Your task to perform on an android device: delete the emails in spam in the gmail app Image 0: 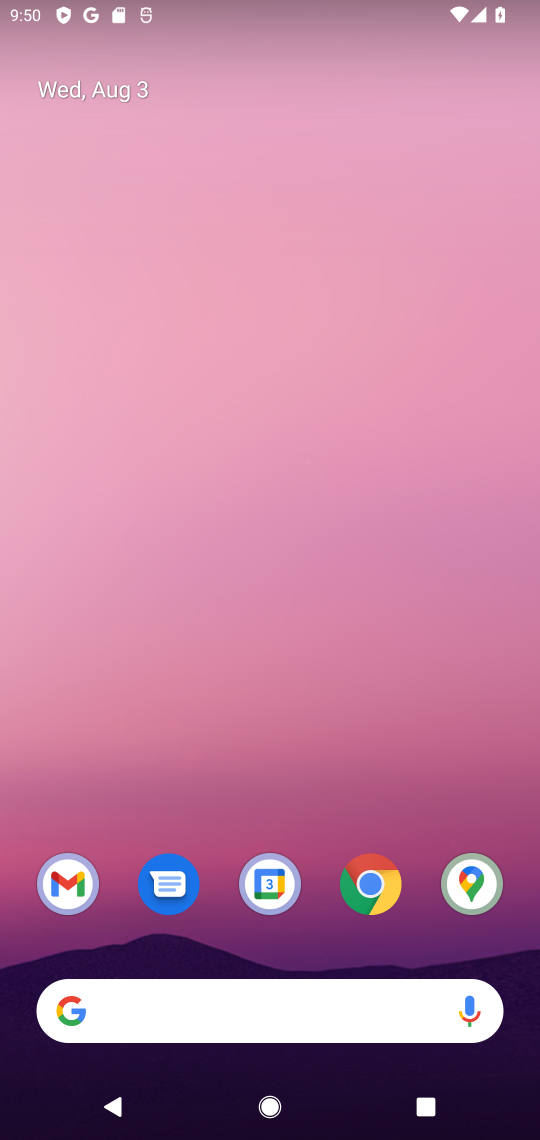
Step 0: click (68, 868)
Your task to perform on an android device: delete the emails in spam in the gmail app Image 1: 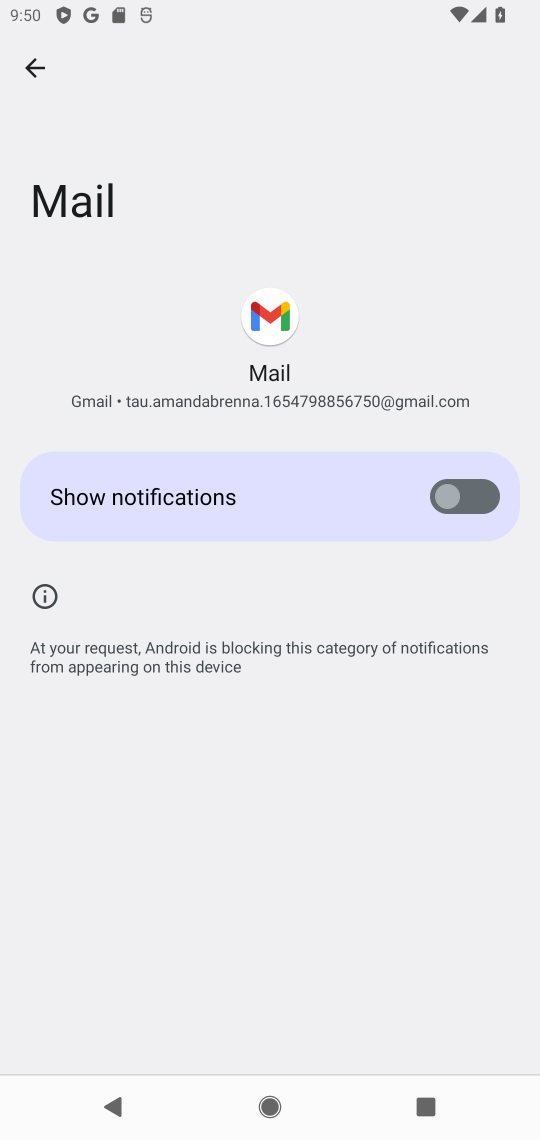
Step 1: click (117, 1113)
Your task to perform on an android device: delete the emails in spam in the gmail app Image 2: 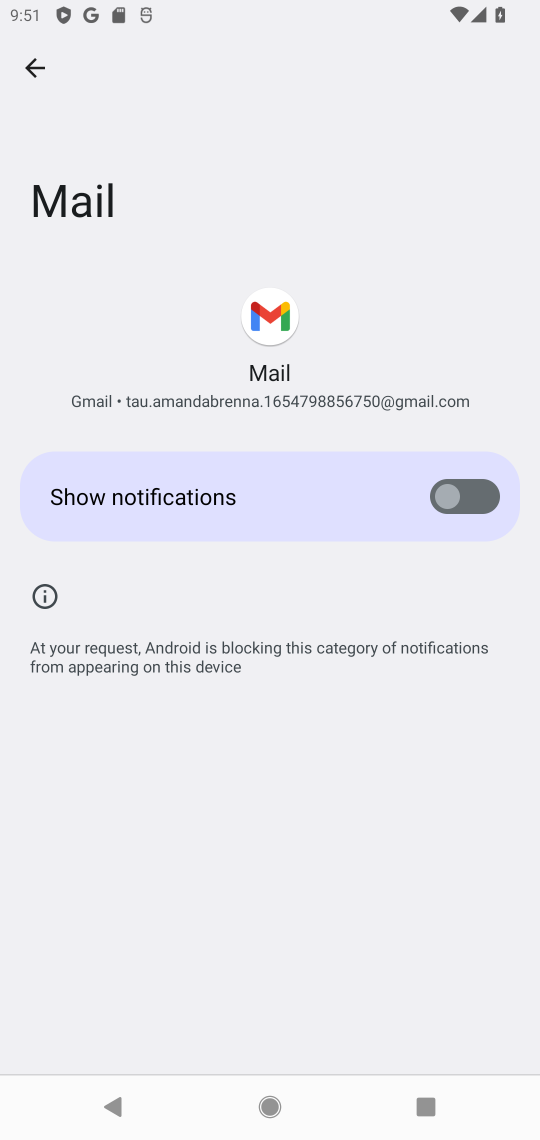
Step 2: click (36, 72)
Your task to perform on an android device: delete the emails in spam in the gmail app Image 3: 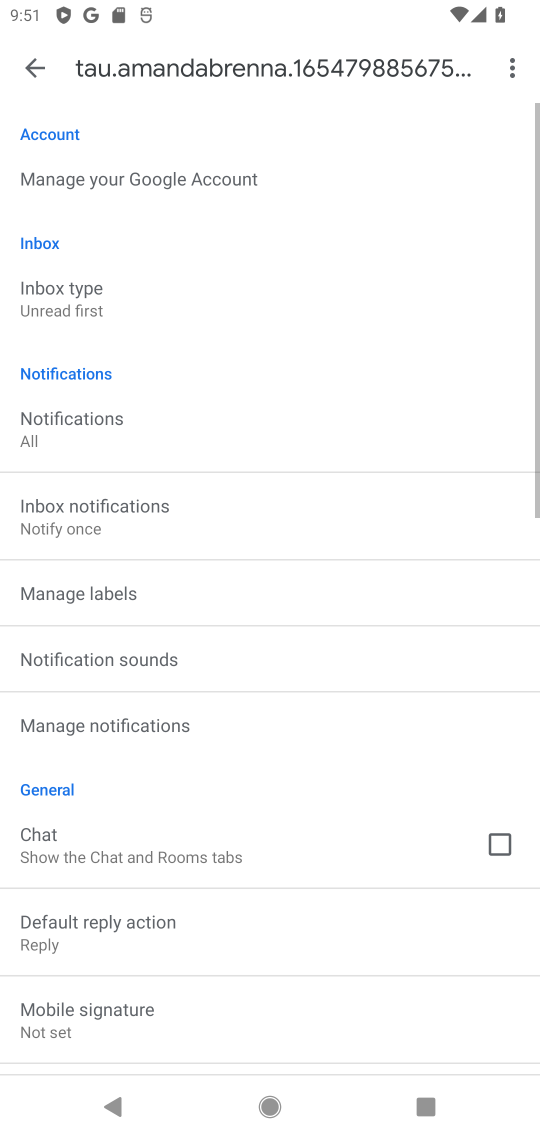
Step 3: click (36, 72)
Your task to perform on an android device: delete the emails in spam in the gmail app Image 4: 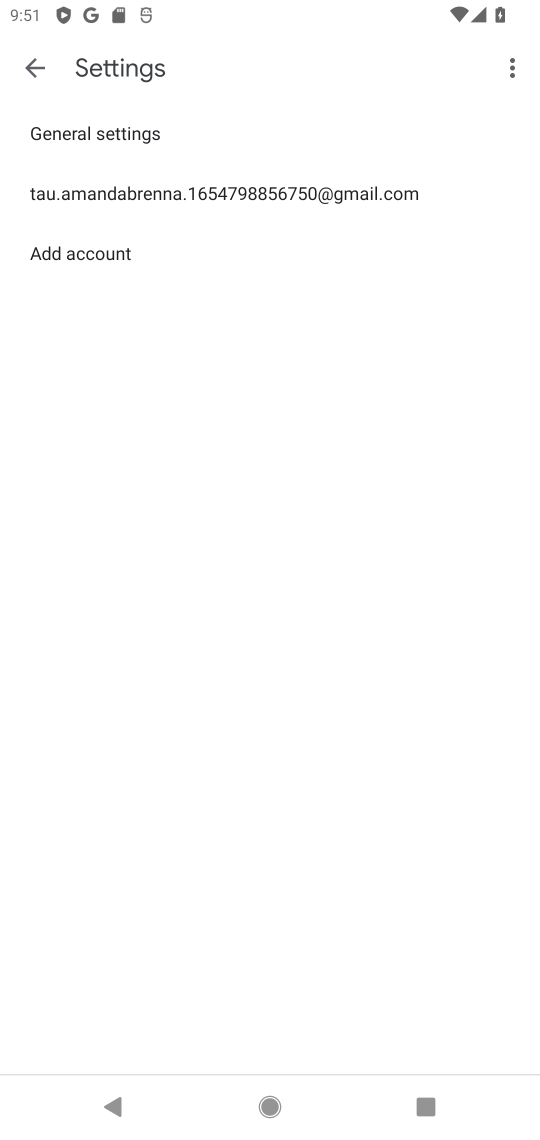
Step 4: click (36, 72)
Your task to perform on an android device: delete the emails in spam in the gmail app Image 5: 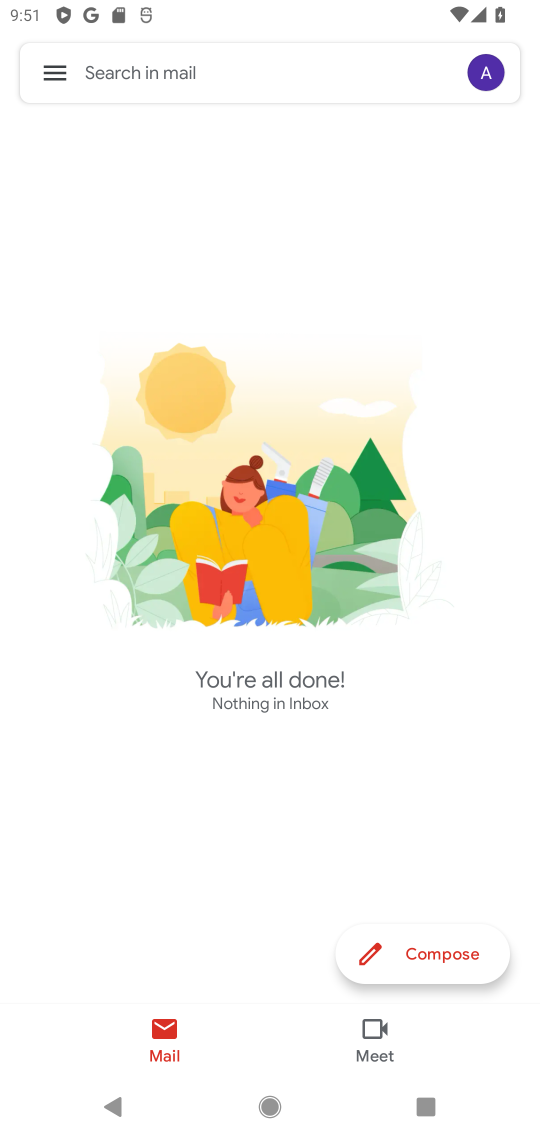
Step 5: click (36, 72)
Your task to perform on an android device: delete the emails in spam in the gmail app Image 6: 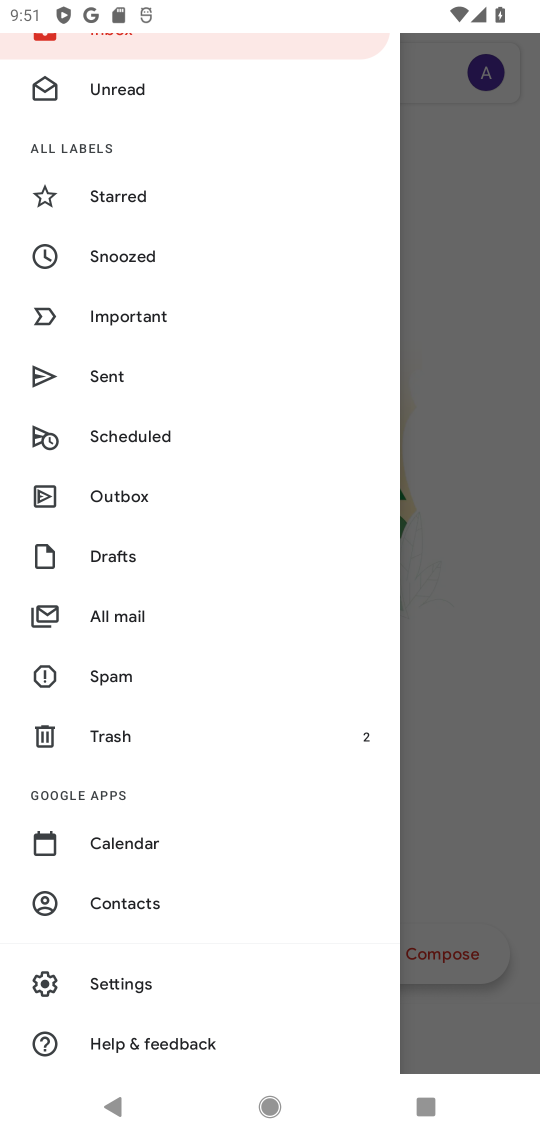
Step 6: click (110, 681)
Your task to perform on an android device: delete the emails in spam in the gmail app Image 7: 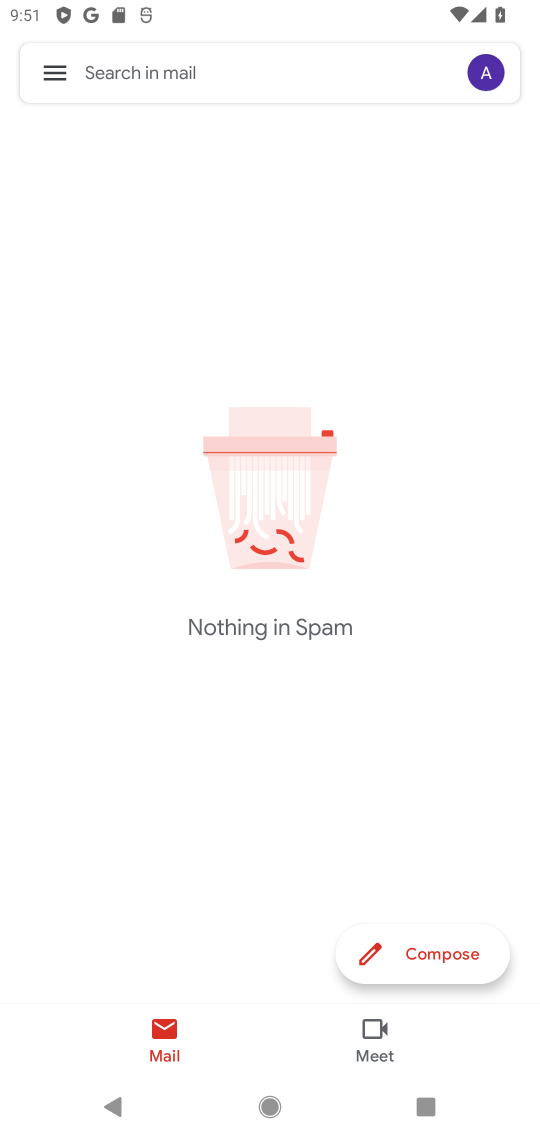
Step 7: task complete